Your task to perform on an android device: Open the map Image 0: 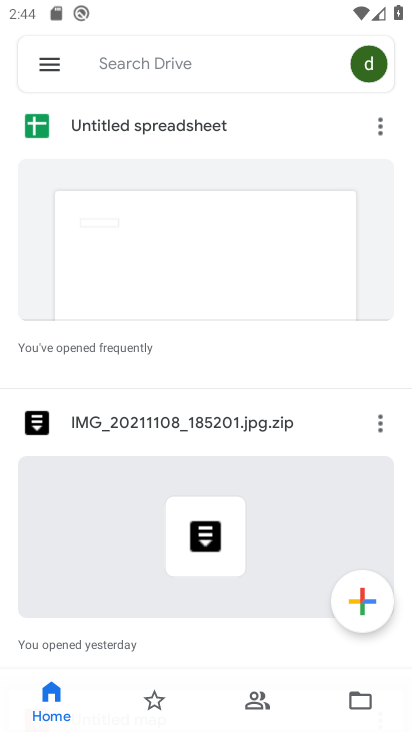
Step 0: press home button
Your task to perform on an android device: Open the map Image 1: 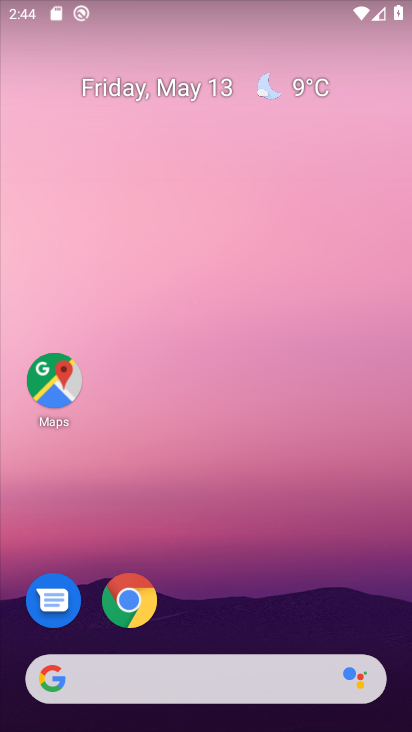
Step 1: click (59, 386)
Your task to perform on an android device: Open the map Image 2: 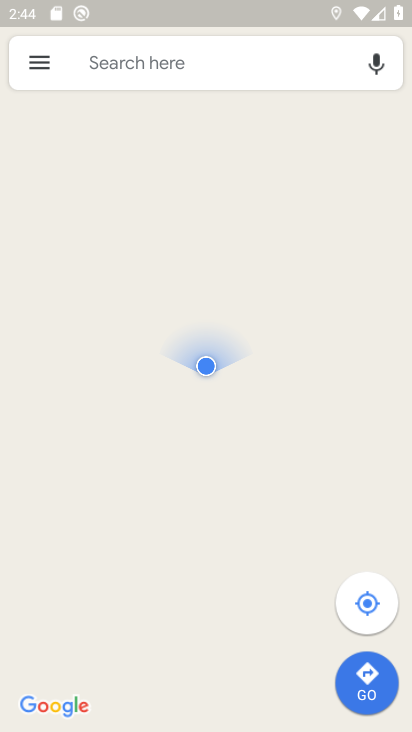
Step 2: task complete